Your task to perform on an android device: Go to battery settings Image 0: 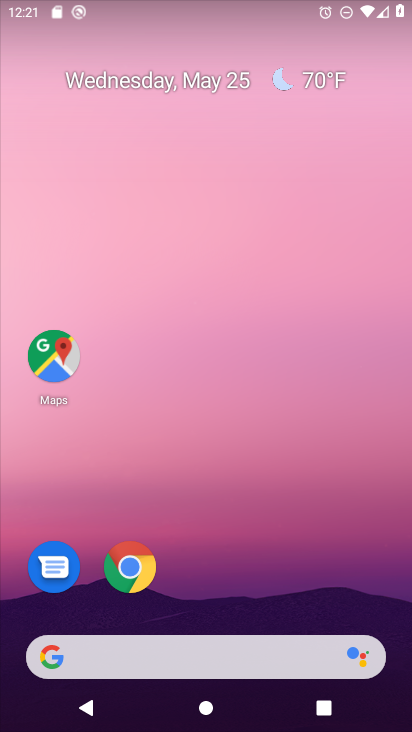
Step 0: drag from (397, 693) to (360, 247)
Your task to perform on an android device: Go to battery settings Image 1: 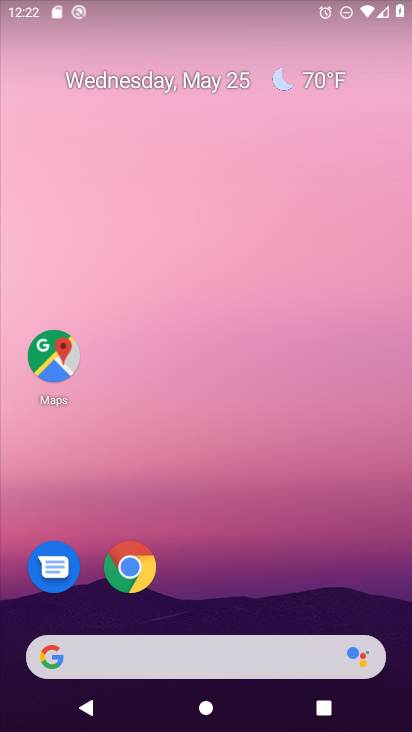
Step 1: drag from (400, 678) to (356, 176)
Your task to perform on an android device: Go to battery settings Image 2: 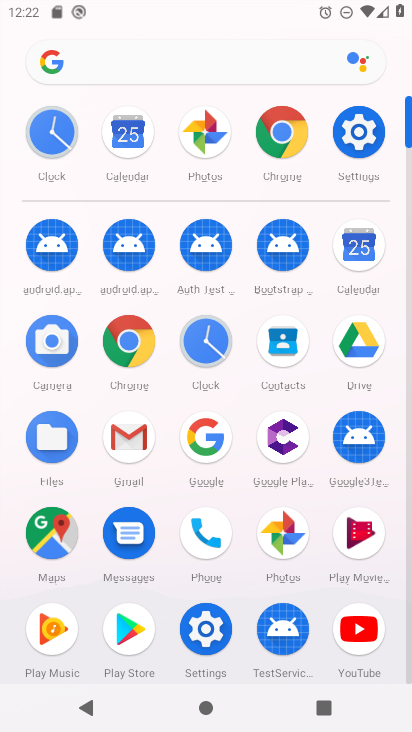
Step 2: click (367, 124)
Your task to perform on an android device: Go to battery settings Image 3: 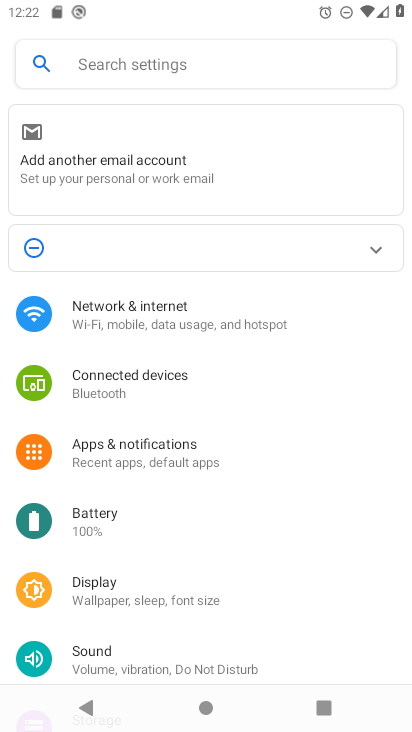
Step 3: click (85, 522)
Your task to perform on an android device: Go to battery settings Image 4: 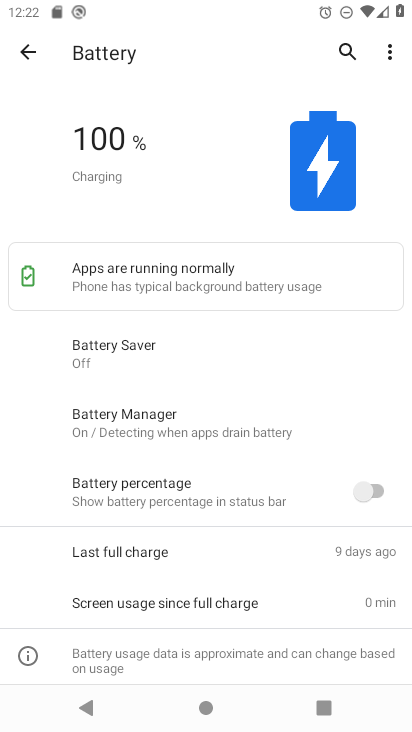
Step 4: task complete